Your task to perform on an android device: Go to privacy settings Image 0: 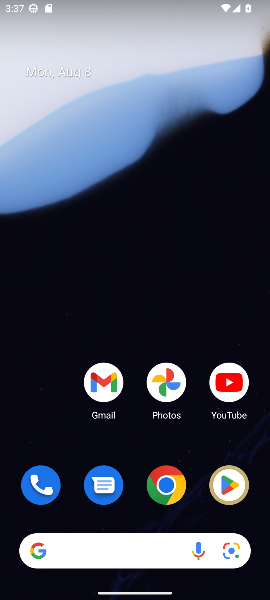
Step 0: click (109, 0)
Your task to perform on an android device: Go to privacy settings Image 1: 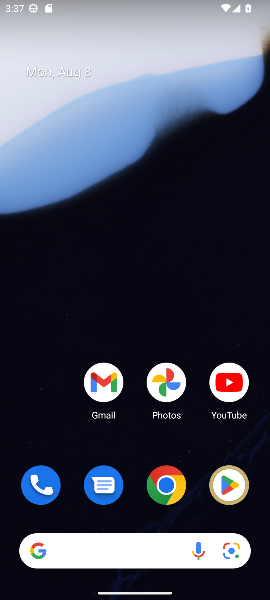
Step 1: drag from (154, 428) to (159, 60)
Your task to perform on an android device: Go to privacy settings Image 2: 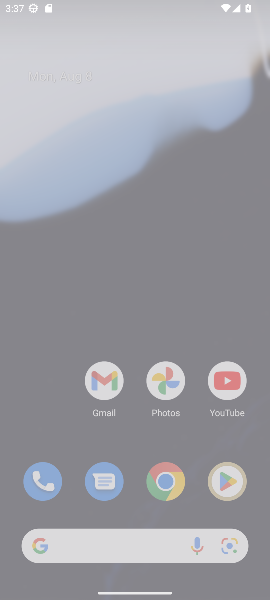
Step 2: drag from (185, 472) to (132, 142)
Your task to perform on an android device: Go to privacy settings Image 3: 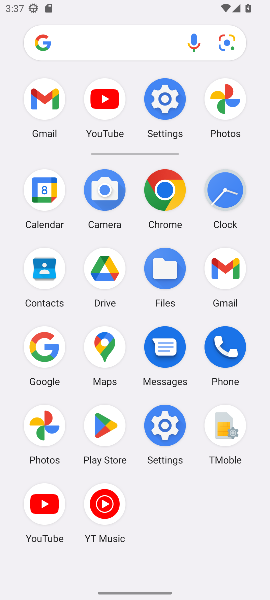
Step 3: drag from (150, 536) to (112, 403)
Your task to perform on an android device: Go to privacy settings Image 4: 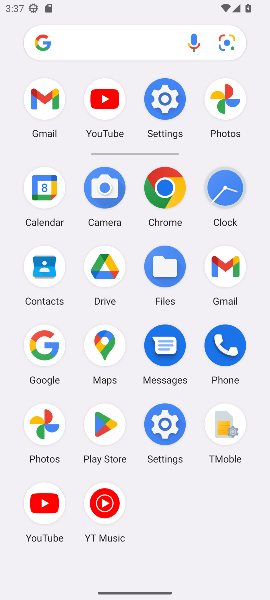
Step 4: click (161, 432)
Your task to perform on an android device: Go to privacy settings Image 5: 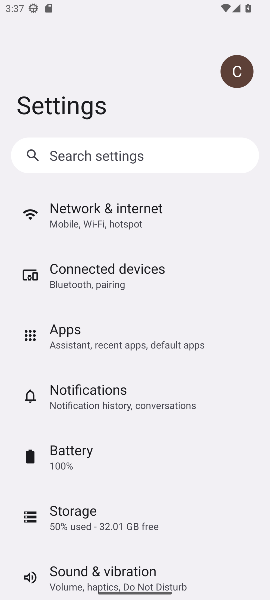
Step 5: drag from (100, 480) to (87, 250)
Your task to perform on an android device: Go to privacy settings Image 6: 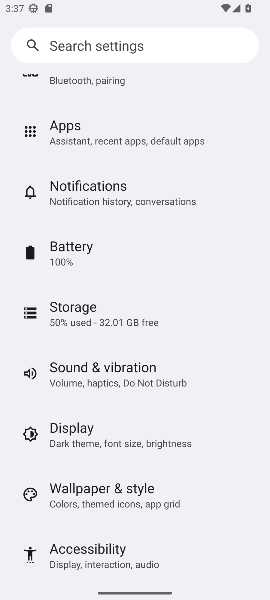
Step 6: drag from (106, 392) to (98, 93)
Your task to perform on an android device: Go to privacy settings Image 7: 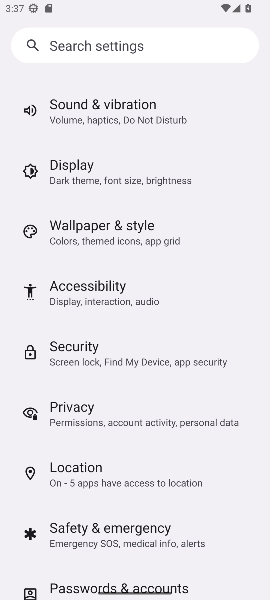
Step 7: drag from (108, 371) to (103, 159)
Your task to perform on an android device: Go to privacy settings Image 8: 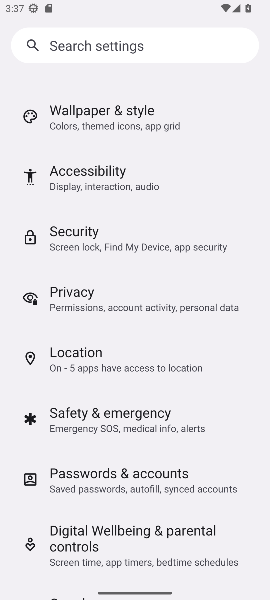
Step 8: drag from (179, 483) to (140, 237)
Your task to perform on an android device: Go to privacy settings Image 9: 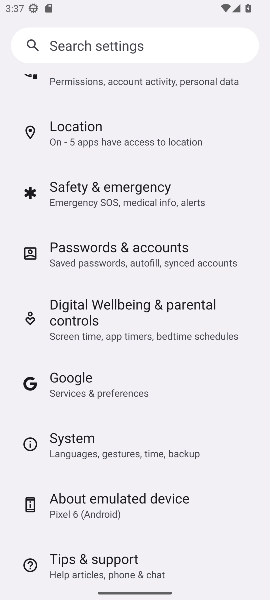
Step 9: click (60, 166)
Your task to perform on an android device: Go to privacy settings Image 10: 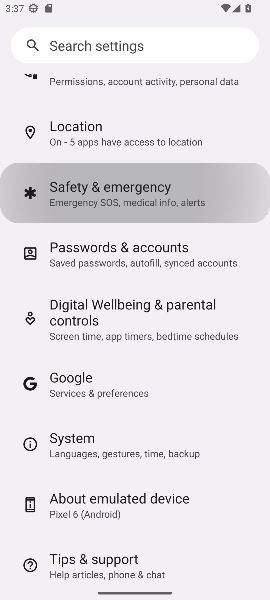
Step 10: click (61, 164)
Your task to perform on an android device: Go to privacy settings Image 11: 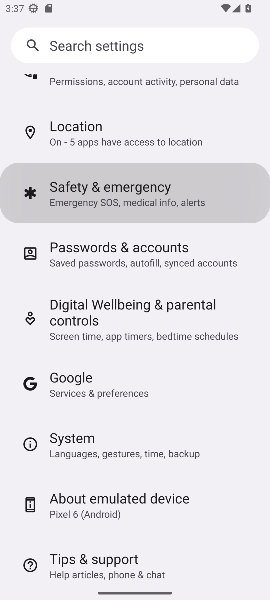
Step 11: click (61, 164)
Your task to perform on an android device: Go to privacy settings Image 12: 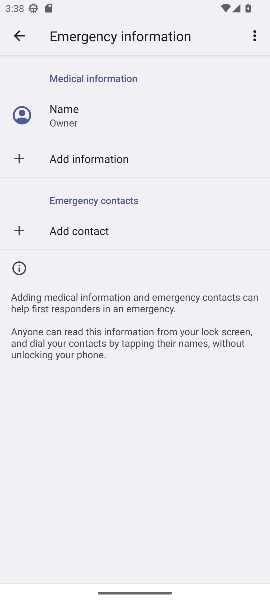
Step 12: click (24, 36)
Your task to perform on an android device: Go to privacy settings Image 13: 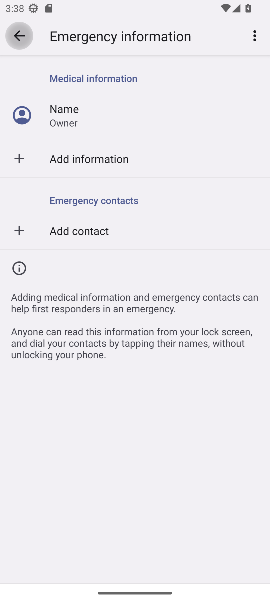
Step 13: click (24, 38)
Your task to perform on an android device: Go to privacy settings Image 14: 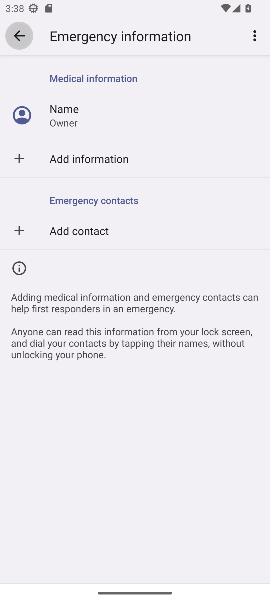
Step 14: click (25, 39)
Your task to perform on an android device: Go to privacy settings Image 15: 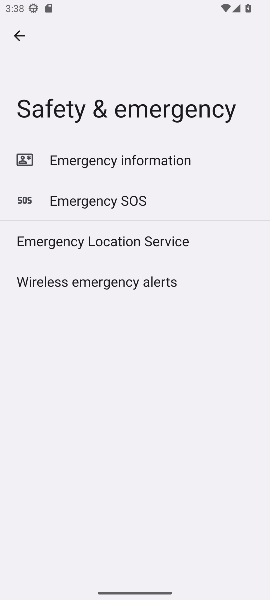
Step 15: click (9, 34)
Your task to perform on an android device: Go to privacy settings Image 16: 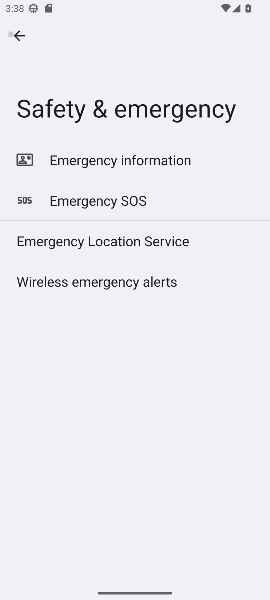
Step 16: click (11, 33)
Your task to perform on an android device: Go to privacy settings Image 17: 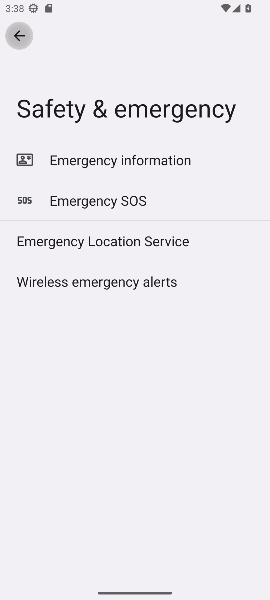
Step 17: click (11, 32)
Your task to perform on an android device: Go to privacy settings Image 18: 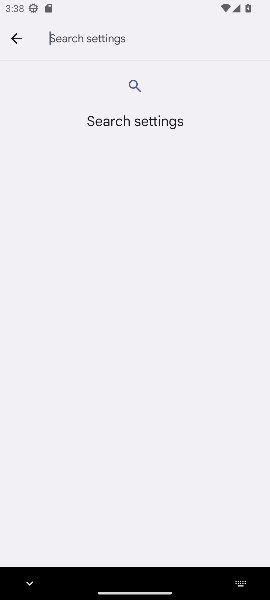
Step 18: click (21, 49)
Your task to perform on an android device: Go to privacy settings Image 19: 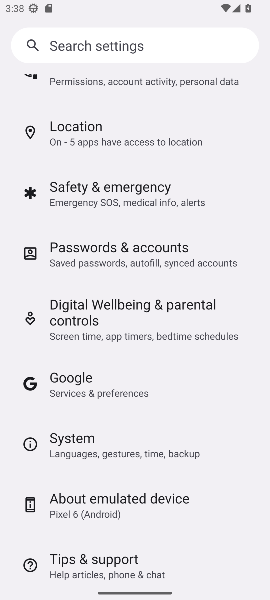
Step 19: task complete